Your task to perform on an android device: turn on notifications settings in the gmail app Image 0: 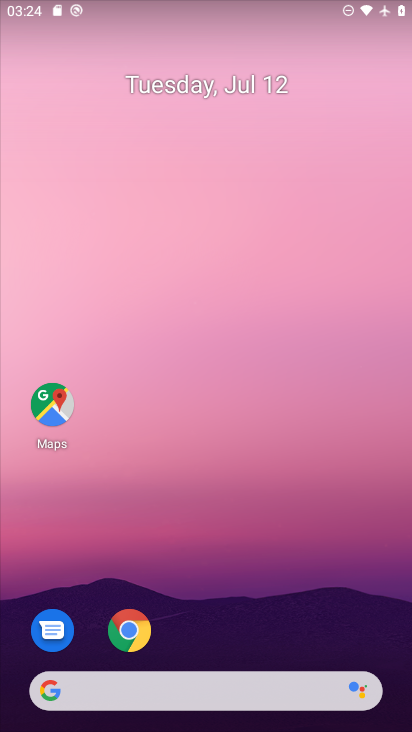
Step 0: drag from (359, 617) to (222, 150)
Your task to perform on an android device: turn on notifications settings in the gmail app Image 1: 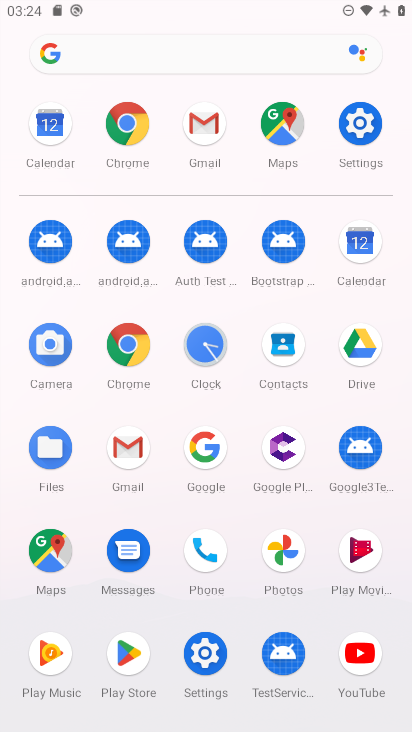
Step 1: click (127, 437)
Your task to perform on an android device: turn on notifications settings in the gmail app Image 2: 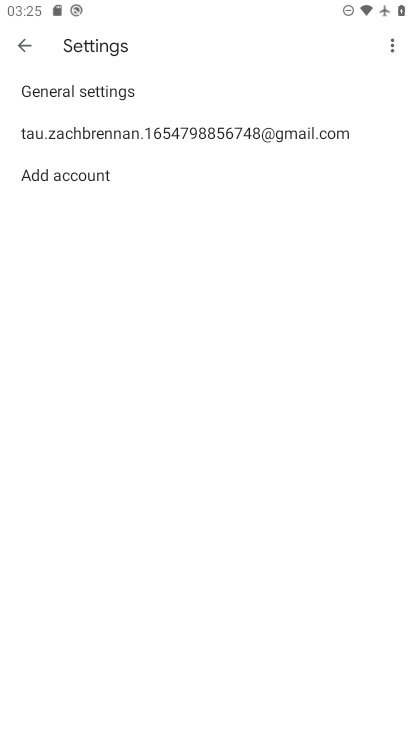
Step 2: click (95, 123)
Your task to perform on an android device: turn on notifications settings in the gmail app Image 3: 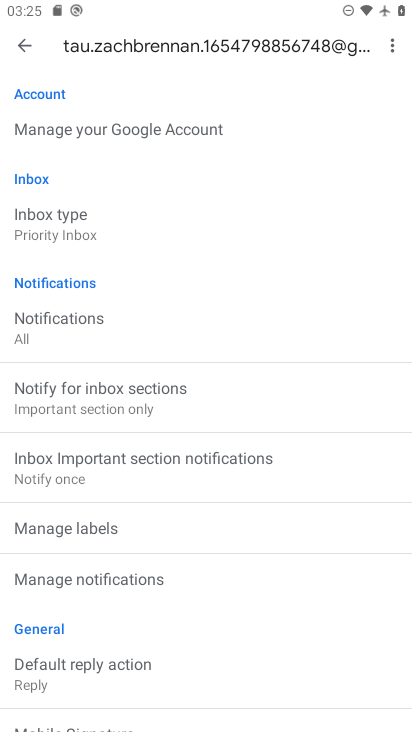
Step 3: click (63, 582)
Your task to perform on an android device: turn on notifications settings in the gmail app Image 4: 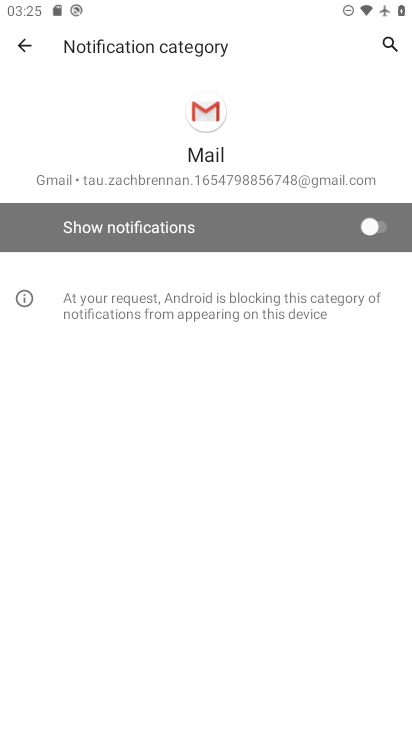
Step 4: click (380, 232)
Your task to perform on an android device: turn on notifications settings in the gmail app Image 5: 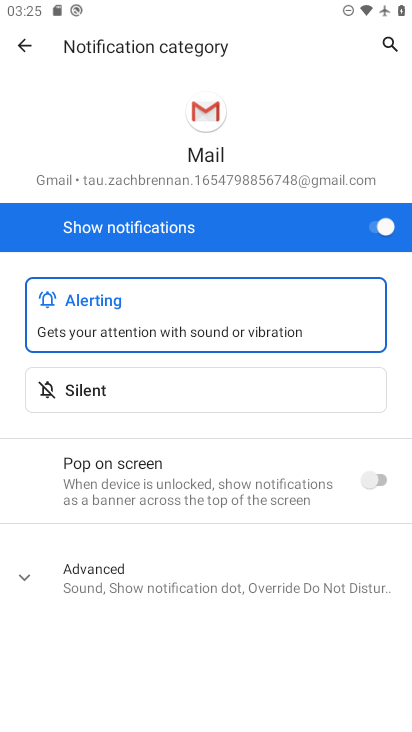
Step 5: task complete